Your task to perform on an android device: allow cookies in the chrome app Image 0: 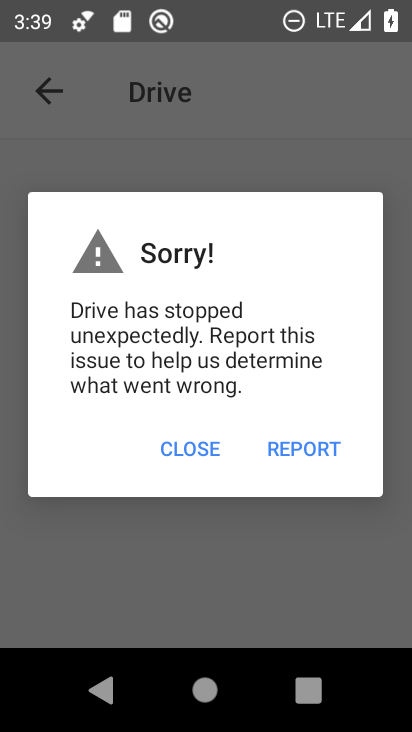
Step 0: click (180, 440)
Your task to perform on an android device: allow cookies in the chrome app Image 1: 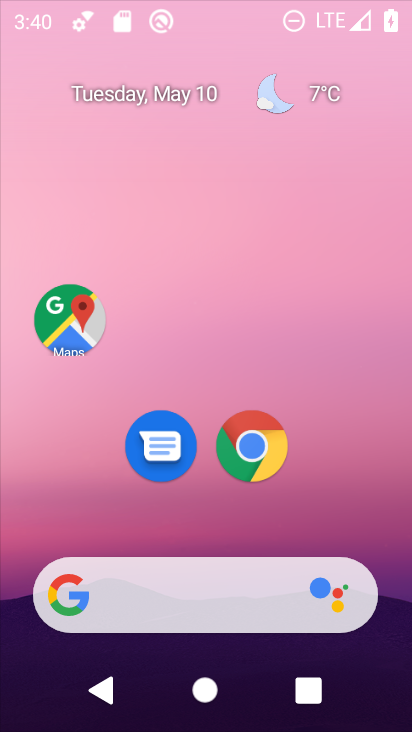
Step 1: press home button
Your task to perform on an android device: allow cookies in the chrome app Image 2: 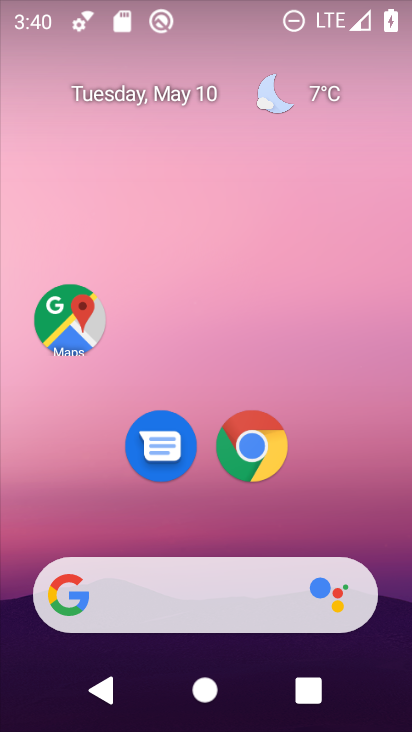
Step 2: click (264, 459)
Your task to perform on an android device: allow cookies in the chrome app Image 3: 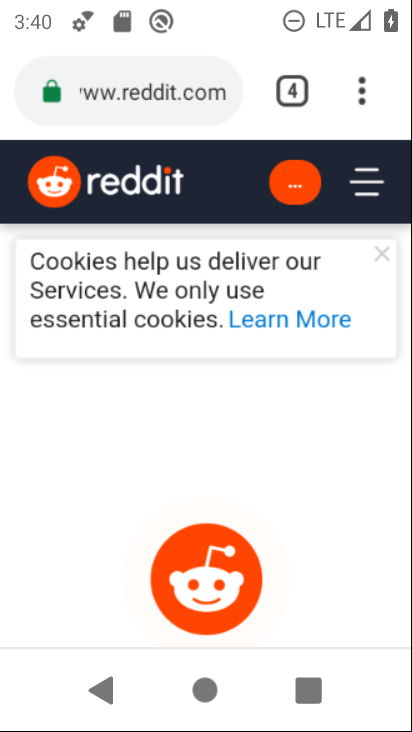
Step 3: click (362, 81)
Your task to perform on an android device: allow cookies in the chrome app Image 4: 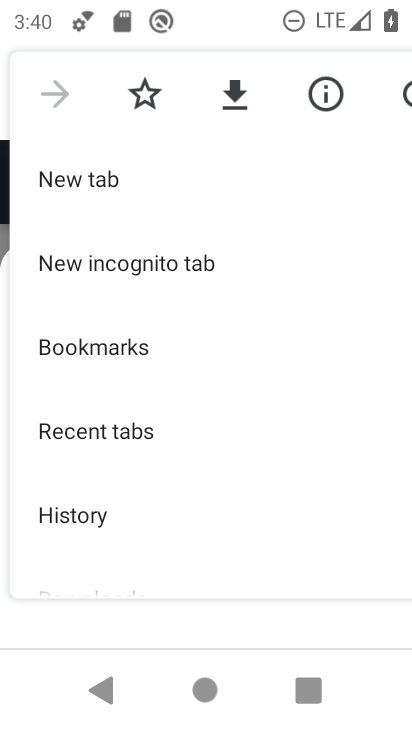
Step 4: drag from (187, 513) to (212, 132)
Your task to perform on an android device: allow cookies in the chrome app Image 5: 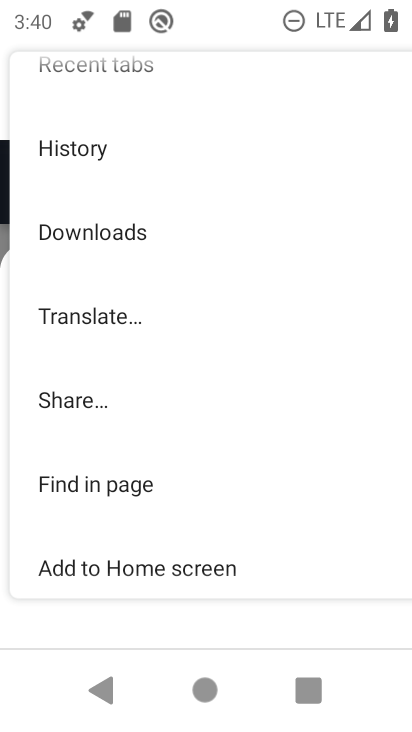
Step 5: drag from (168, 479) to (165, 228)
Your task to perform on an android device: allow cookies in the chrome app Image 6: 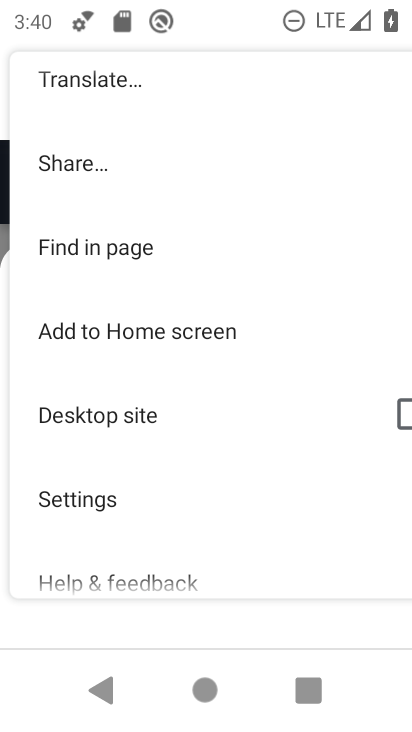
Step 6: click (176, 503)
Your task to perform on an android device: allow cookies in the chrome app Image 7: 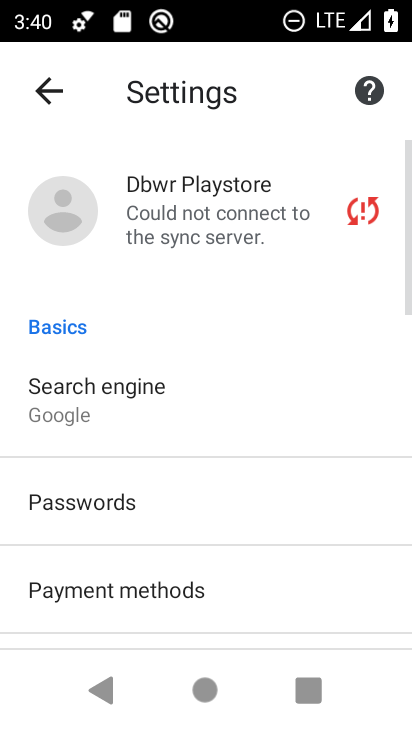
Step 7: drag from (203, 575) to (212, 203)
Your task to perform on an android device: allow cookies in the chrome app Image 8: 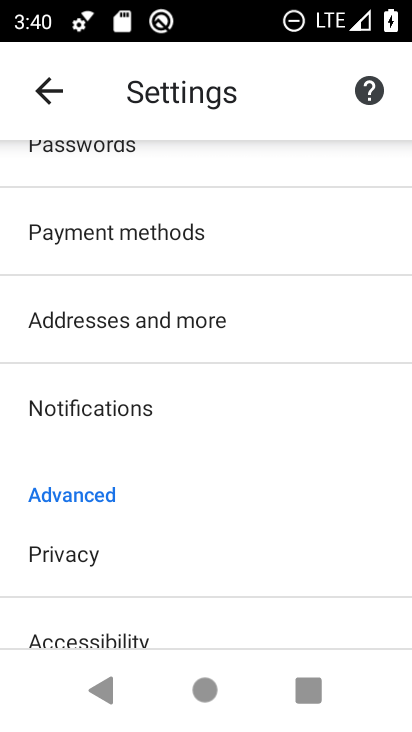
Step 8: drag from (161, 526) to (178, 274)
Your task to perform on an android device: allow cookies in the chrome app Image 9: 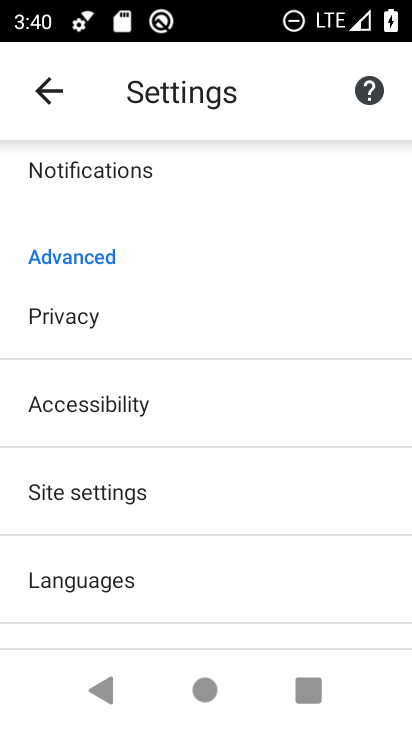
Step 9: click (123, 495)
Your task to perform on an android device: allow cookies in the chrome app Image 10: 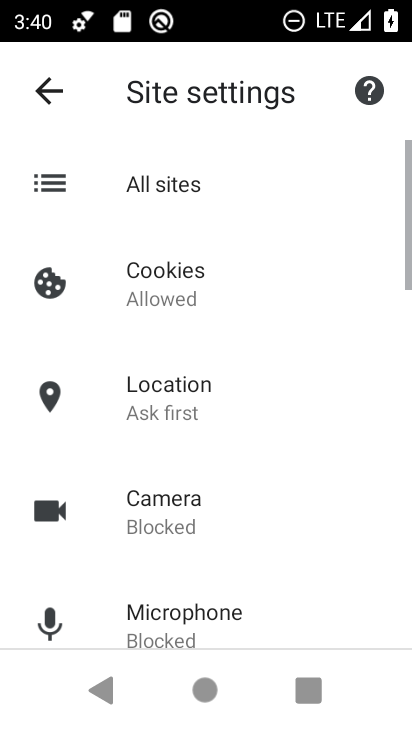
Step 10: click (174, 281)
Your task to perform on an android device: allow cookies in the chrome app Image 11: 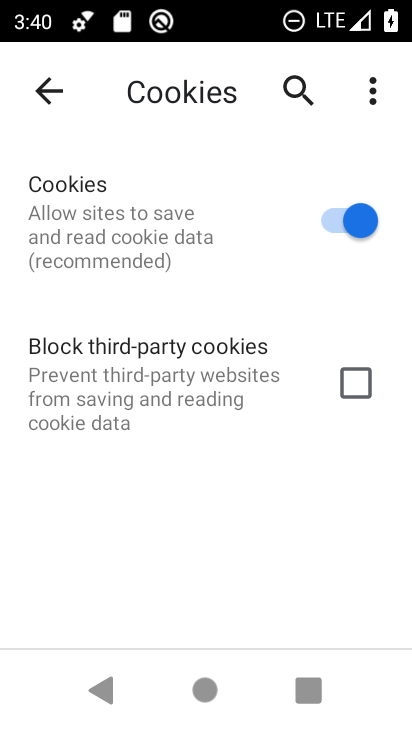
Step 11: task complete